Your task to perform on an android device: Open Youtube and go to "Your channel" Image 0: 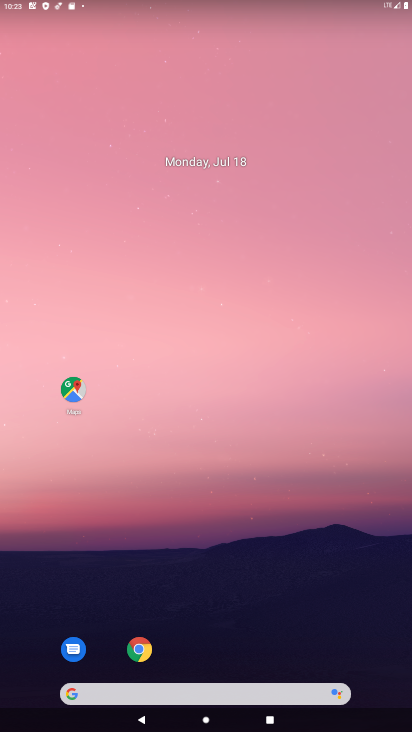
Step 0: drag from (169, 721) to (352, 1)
Your task to perform on an android device: Open Youtube and go to "Your channel" Image 1: 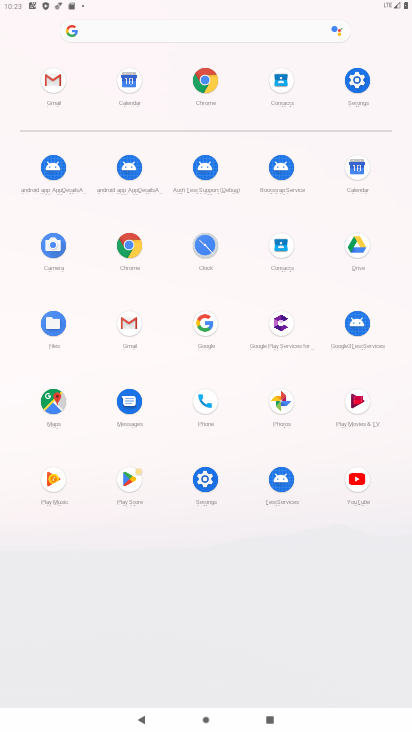
Step 1: click (364, 476)
Your task to perform on an android device: Open Youtube and go to "Your channel" Image 2: 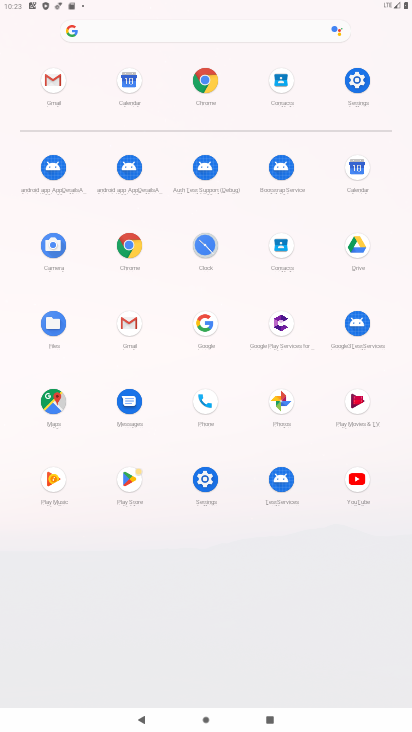
Step 2: click (364, 476)
Your task to perform on an android device: Open Youtube and go to "Your channel" Image 3: 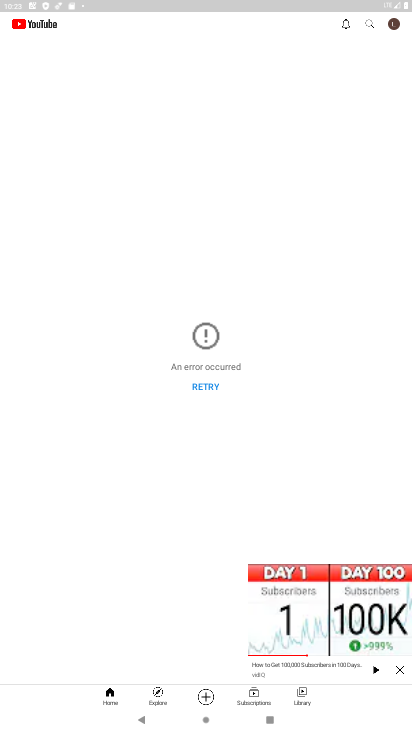
Step 3: click (397, 668)
Your task to perform on an android device: Open Youtube and go to "Your channel" Image 4: 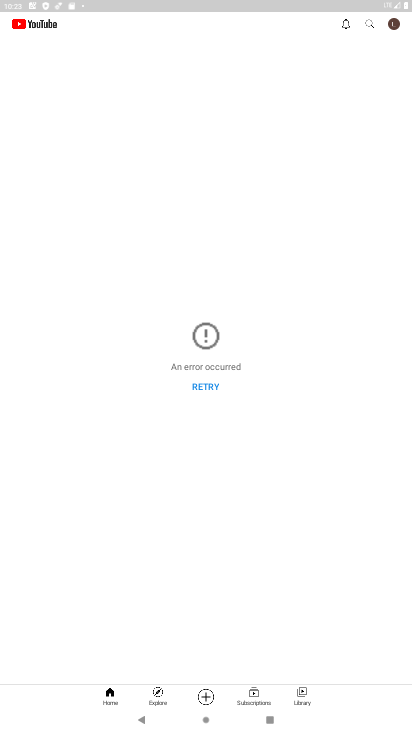
Step 4: click (394, 25)
Your task to perform on an android device: Open Youtube and go to "Your channel" Image 5: 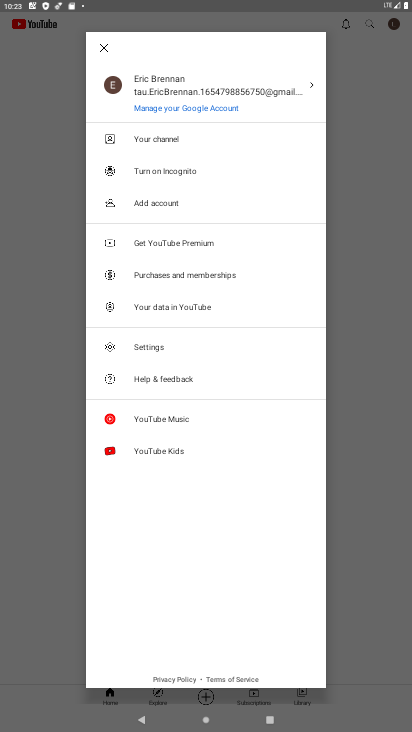
Step 5: click (186, 138)
Your task to perform on an android device: Open Youtube and go to "Your channel" Image 6: 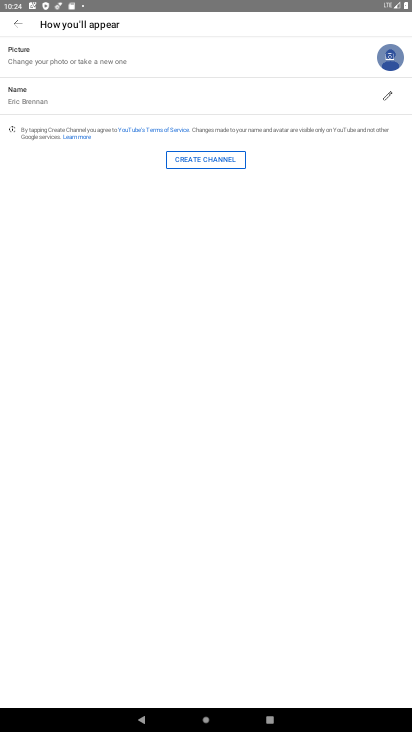
Step 6: task complete